Your task to perform on an android device: Open settings on Google Maps Image 0: 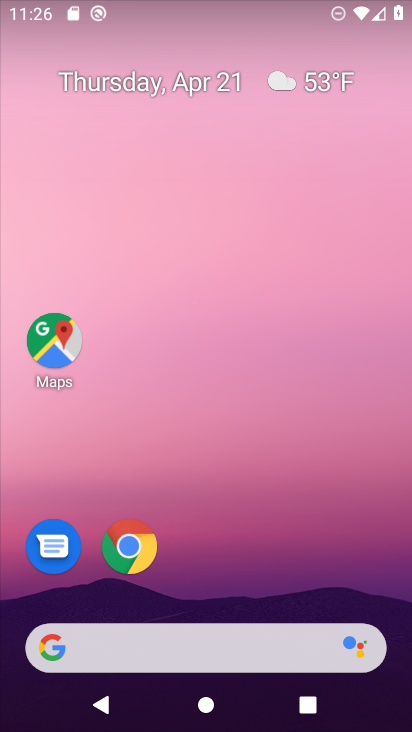
Step 0: click (56, 339)
Your task to perform on an android device: Open settings on Google Maps Image 1: 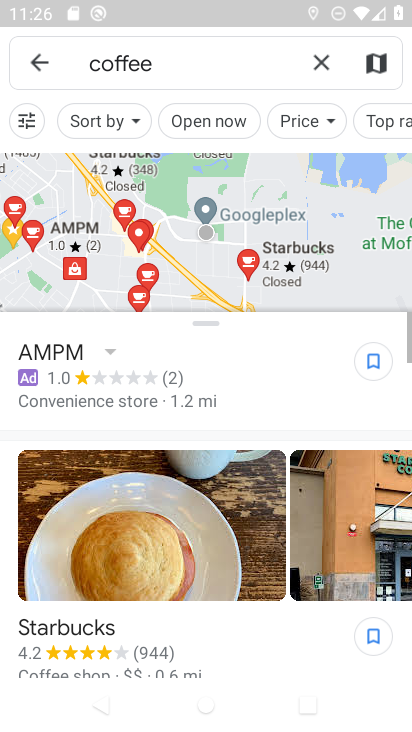
Step 1: click (327, 55)
Your task to perform on an android device: Open settings on Google Maps Image 2: 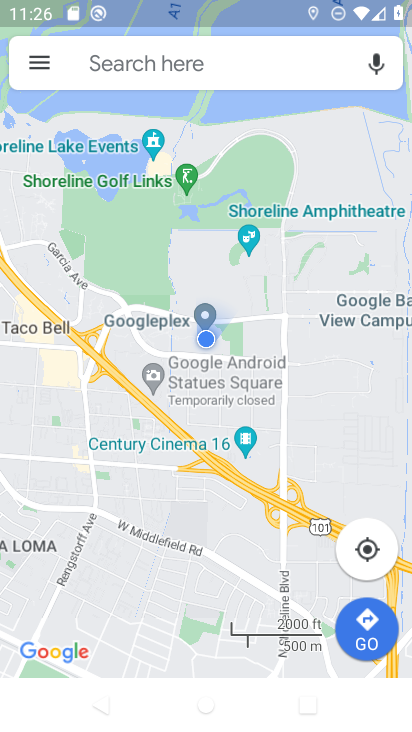
Step 2: click (38, 67)
Your task to perform on an android device: Open settings on Google Maps Image 3: 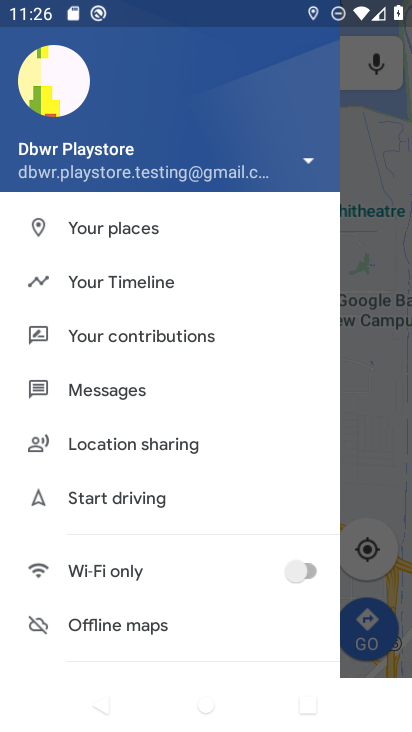
Step 3: drag from (140, 648) to (140, 311)
Your task to perform on an android device: Open settings on Google Maps Image 4: 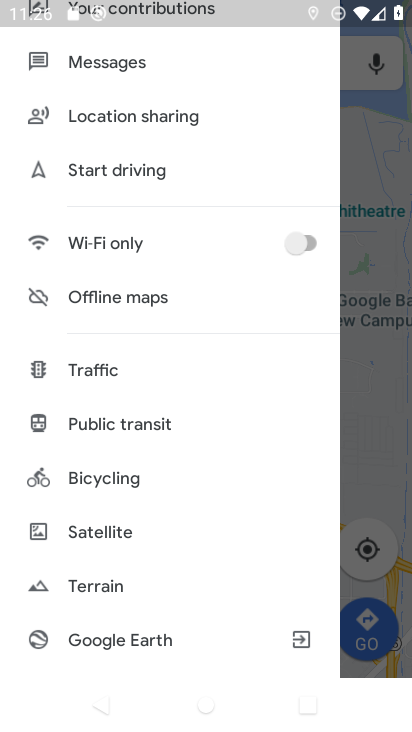
Step 4: drag from (136, 650) to (140, 275)
Your task to perform on an android device: Open settings on Google Maps Image 5: 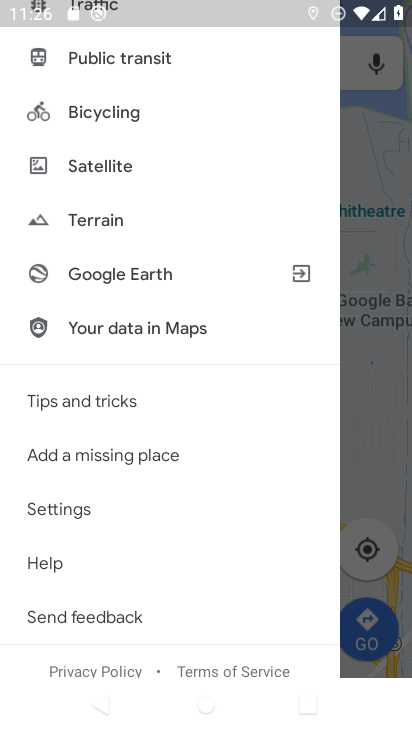
Step 5: drag from (142, 634) to (161, 295)
Your task to perform on an android device: Open settings on Google Maps Image 6: 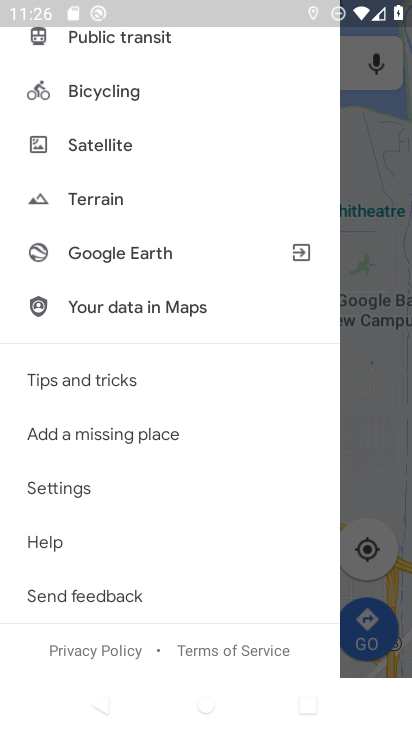
Step 6: click (66, 477)
Your task to perform on an android device: Open settings on Google Maps Image 7: 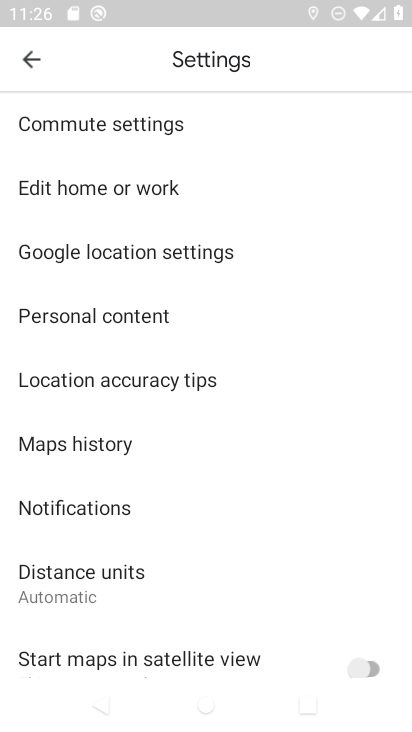
Step 7: task complete